Your task to perform on an android device: turn pop-ups off in chrome Image 0: 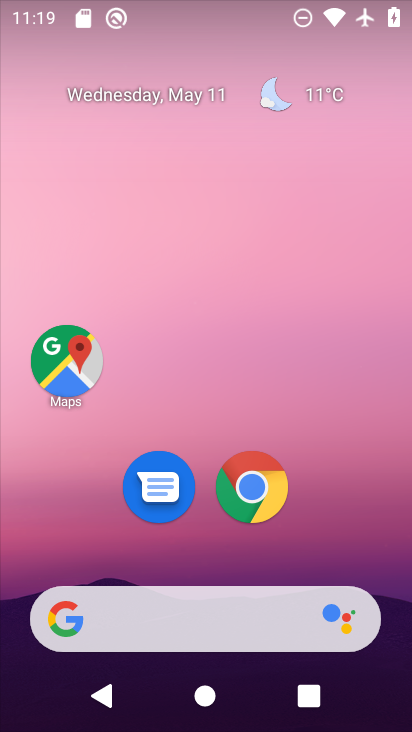
Step 0: drag from (387, 532) to (265, 2)
Your task to perform on an android device: turn pop-ups off in chrome Image 1: 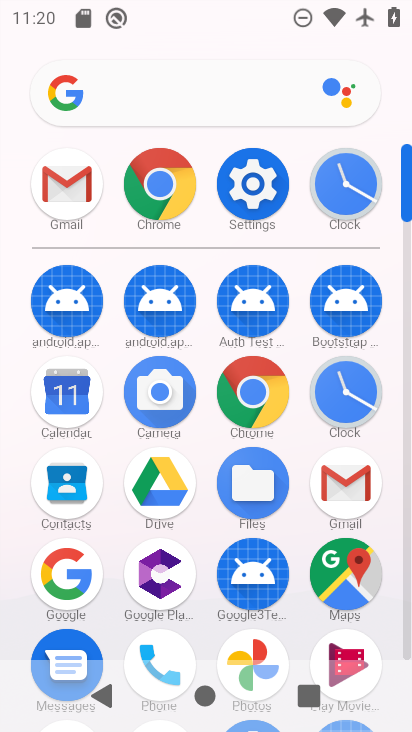
Step 1: click (250, 389)
Your task to perform on an android device: turn pop-ups off in chrome Image 2: 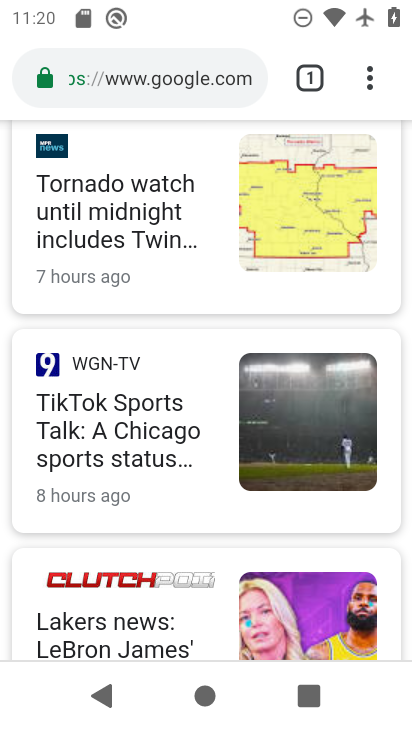
Step 2: drag from (368, 78) to (141, 543)
Your task to perform on an android device: turn pop-ups off in chrome Image 3: 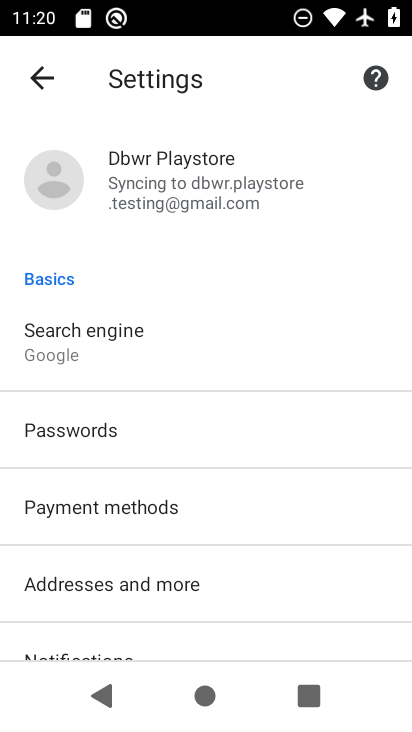
Step 3: drag from (204, 545) to (239, 235)
Your task to perform on an android device: turn pop-ups off in chrome Image 4: 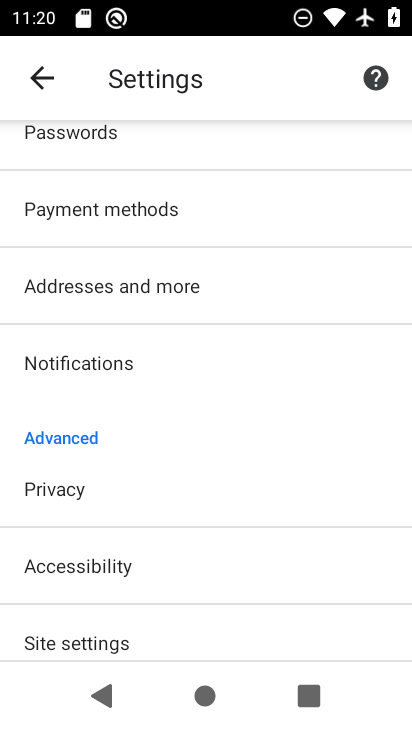
Step 4: drag from (203, 509) to (248, 228)
Your task to perform on an android device: turn pop-ups off in chrome Image 5: 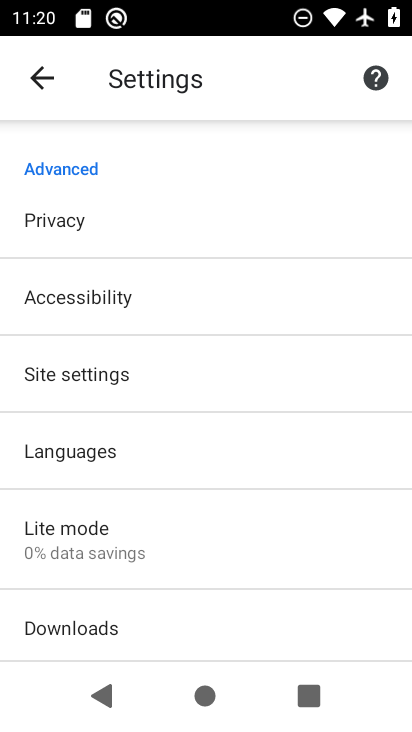
Step 5: click (115, 373)
Your task to perform on an android device: turn pop-ups off in chrome Image 6: 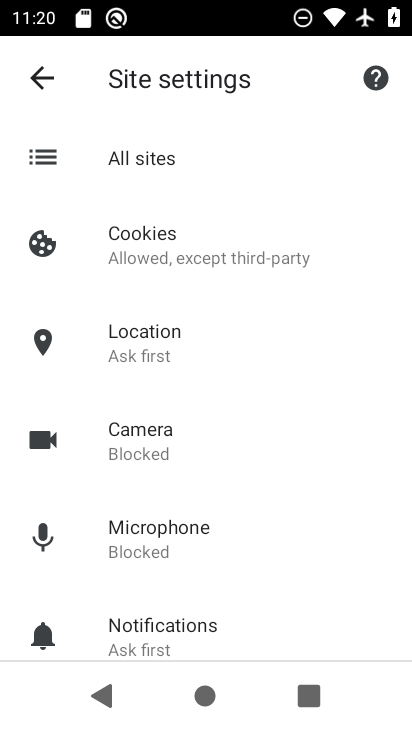
Step 6: drag from (231, 495) to (223, 191)
Your task to perform on an android device: turn pop-ups off in chrome Image 7: 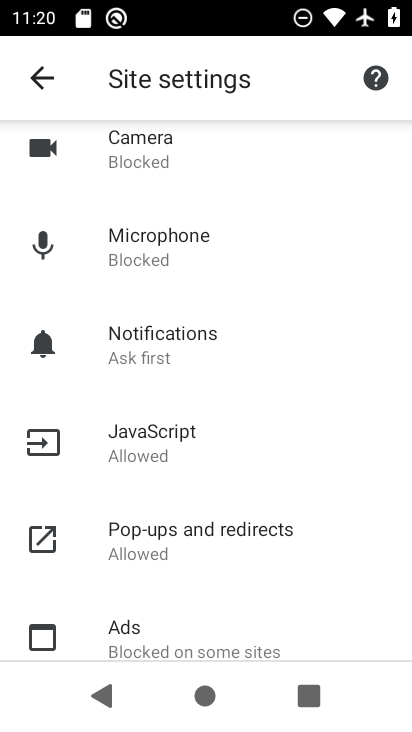
Step 7: click (201, 528)
Your task to perform on an android device: turn pop-ups off in chrome Image 8: 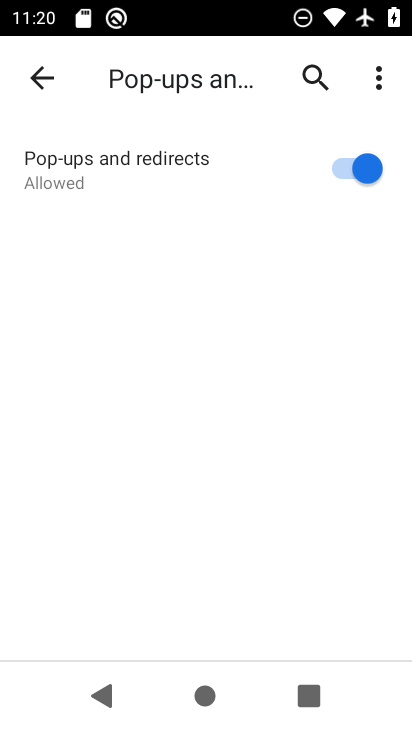
Step 8: click (344, 167)
Your task to perform on an android device: turn pop-ups off in chrome Image 9: 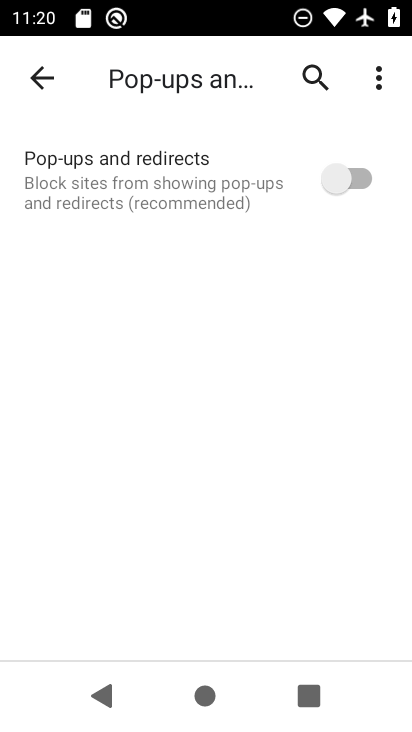
Step 9: task complete